Your task to perform on an android device: allow cookies in the chrome app Image 0: 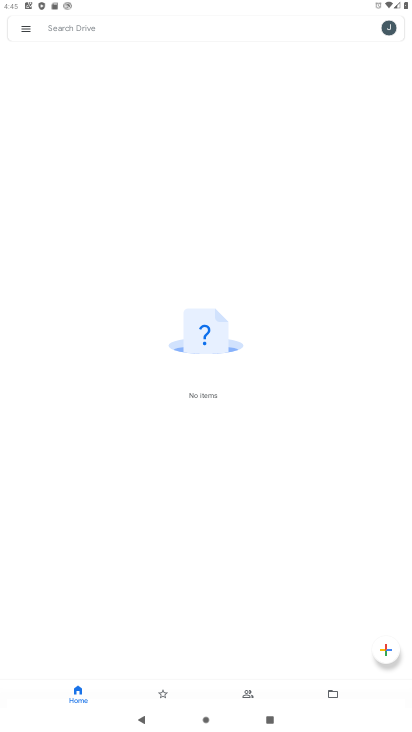
Step 0: press home button
Your task to perform on an android device: allow cookies in the chrome app Image 1: 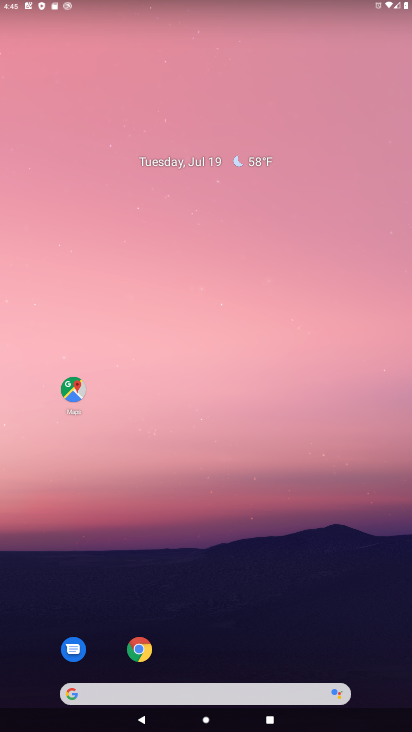
Step 1: click (138, 653)
Your task to perform on an android device: allow cookies in the chrome app Image 2: 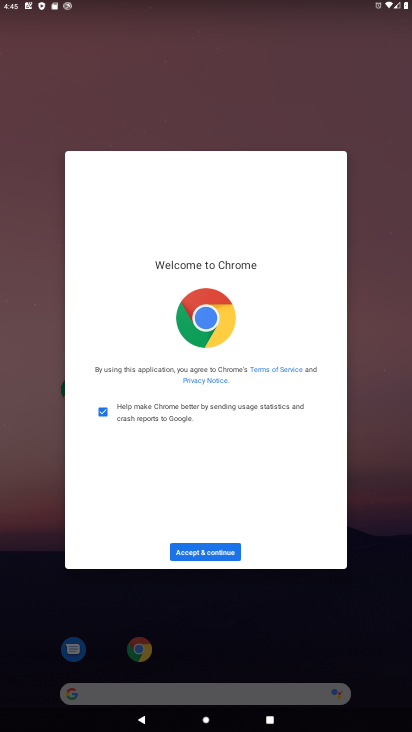
Step 2: click (201, 543)
Your task to perform on an android device: allow cookies in the chrome app Image 3: 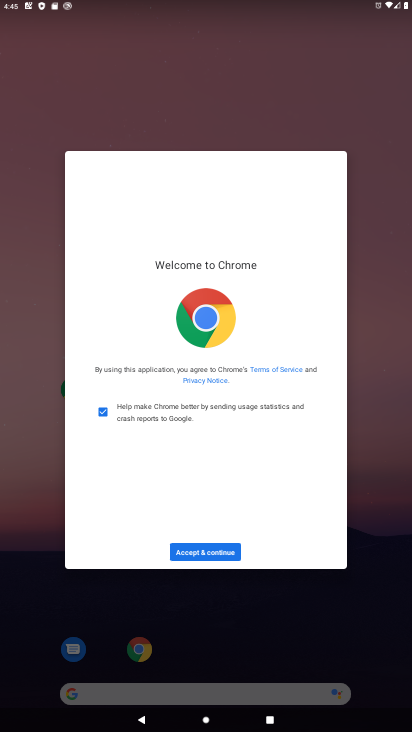
Step 3: click (207, 553)
Your task to perform on an android device: allow cookies in the chrome app Image 4: 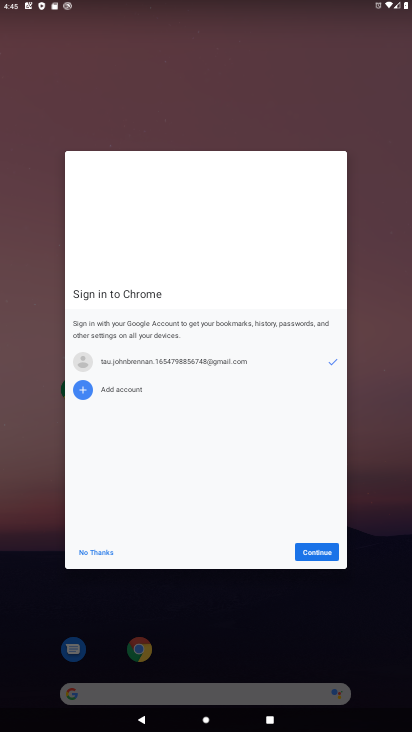
Step 4: click (318, 553)
Your task to perform on an android device: allow cookies in the chrome app Image 5: 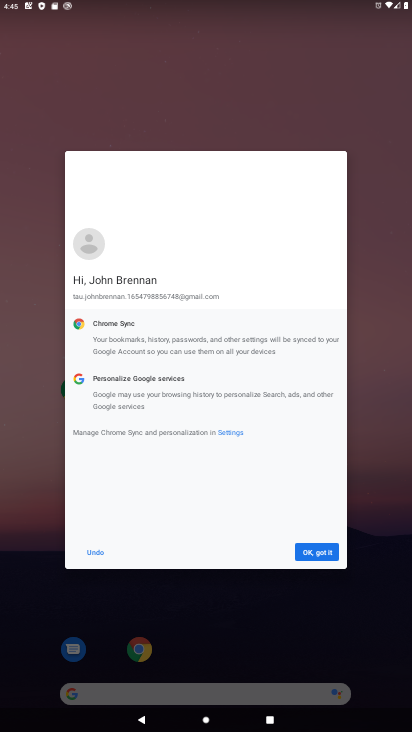
Step 5: click (318, 553)
Your task to perform on an android device: allow cookies in the chrome app Image 6: 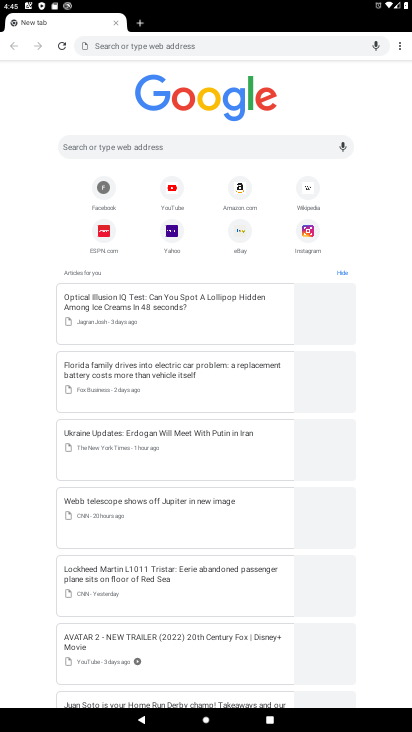
Step 6: click (396, 49)
Your task to perform on an android device: allow cookies in the chrome app Image 7: 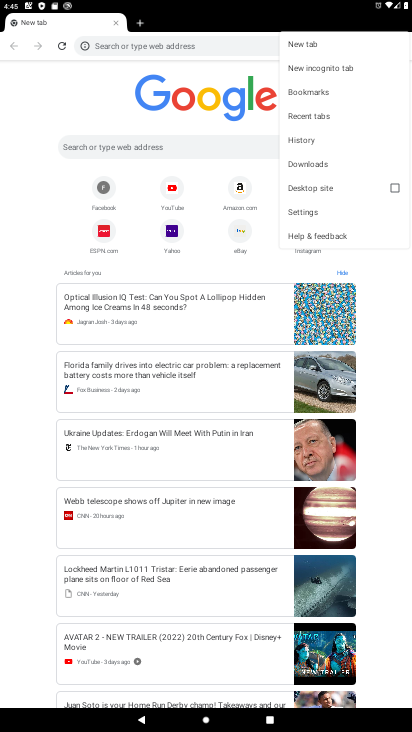
Step 7: click (306, 209)
Your task to perform on an android device: allow cookies in the chrome app Image 8: 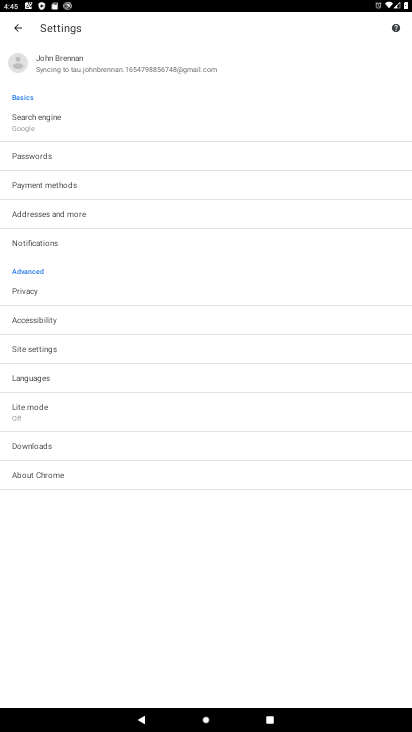
Step 8: click (56, 346)
Your task to perform on an android device: allow cookies in the chrome app Image 9: 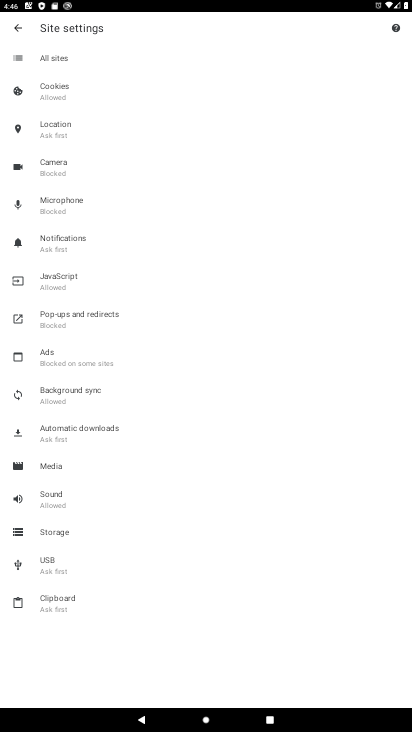
Step 9: click (67, 91)
Your task to perform on an android device: allow cookies in the chrome app Image 10: 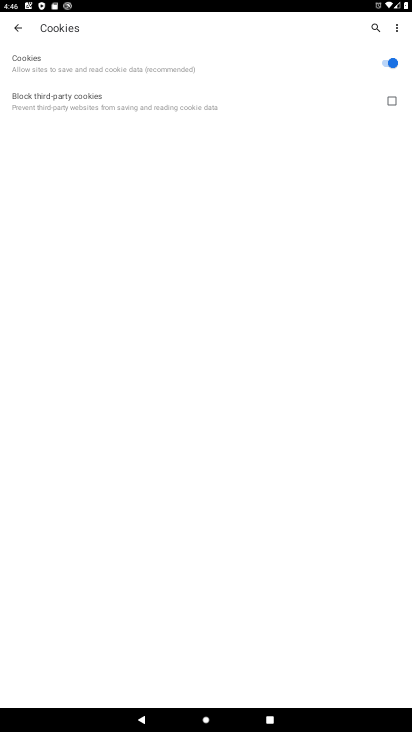
Step 10: task complete